Your task to perform on an android device: open chrome and create a bookmark for the current page Image 0: 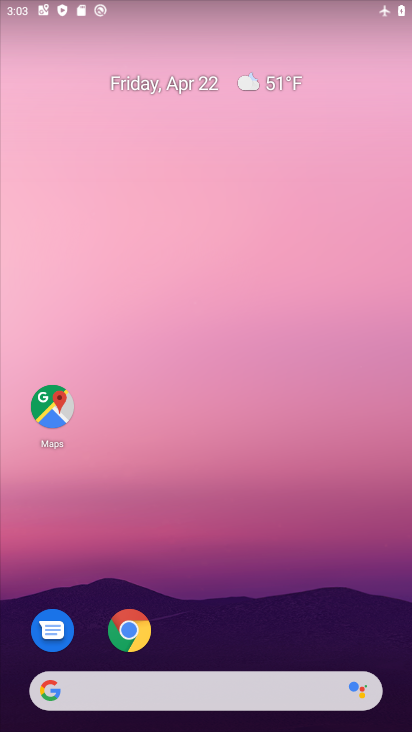
Step 0: drag from (304, 605) to (200, 18)
Your task to perform on an android device: open chrome and create a bookmark for the current page Image 1: 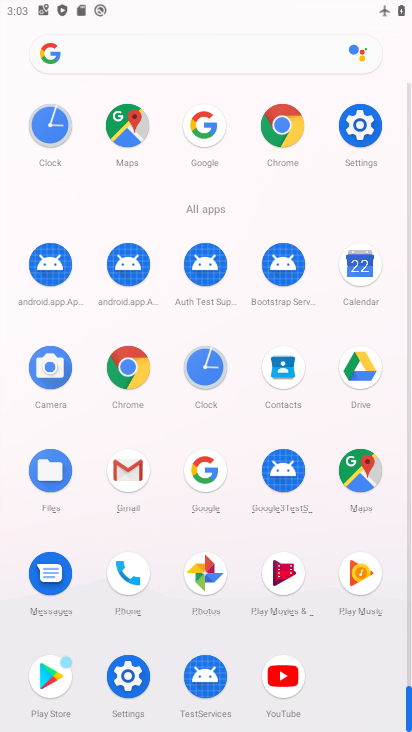
Step 1: drag from (18, 513) to (15, 194)
Your task to perform on an android device: open chrome and create a bookmark for the current page Image 2: 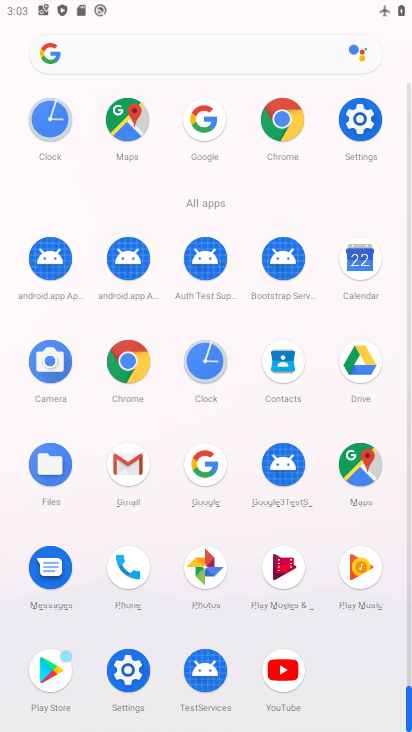
Step 2: drag from (17, 457) to (27, 269)
Your task to perform on an android device: open chrome and create a bookmark for the current page Image 3: 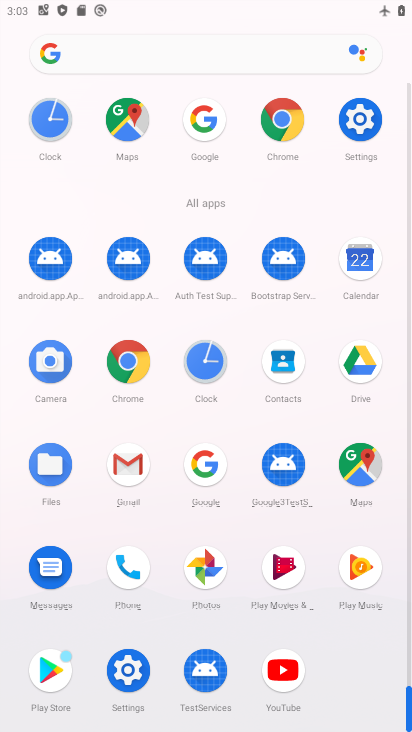
Step 3: drag from (2, 642) to (13, 415)
Your task to perform on an android device: open chrome and create a bookmark for the current page Image 4: 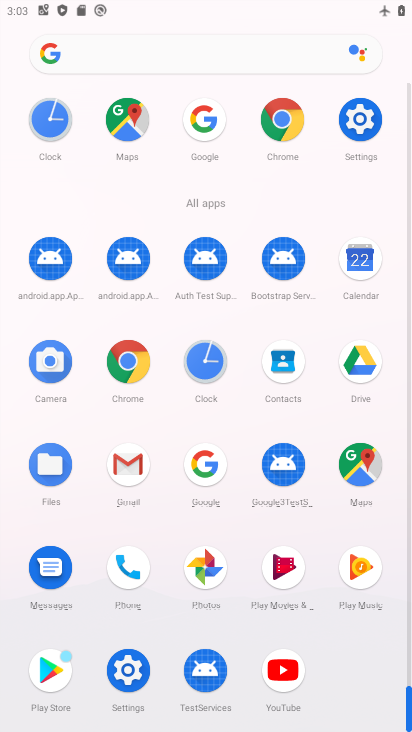
Step 4: click (124, 360)
Your task to perform on an android device: open chrome and create a bookmark for the current page Image 5: 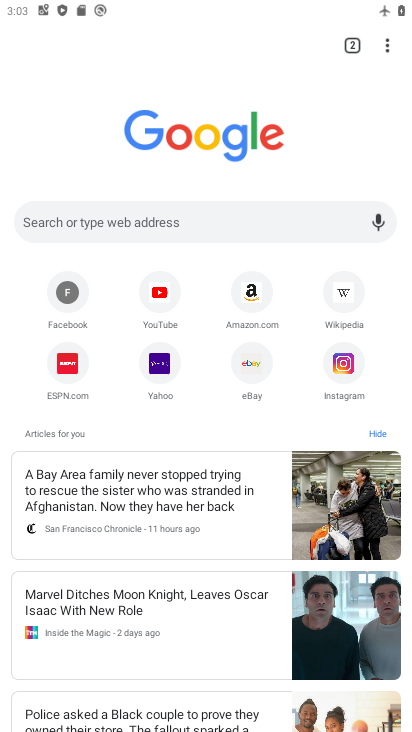
Step 5: task complete